Your task to perform on an android device: read, delete, or share a saved page in the chrome app Image 0: 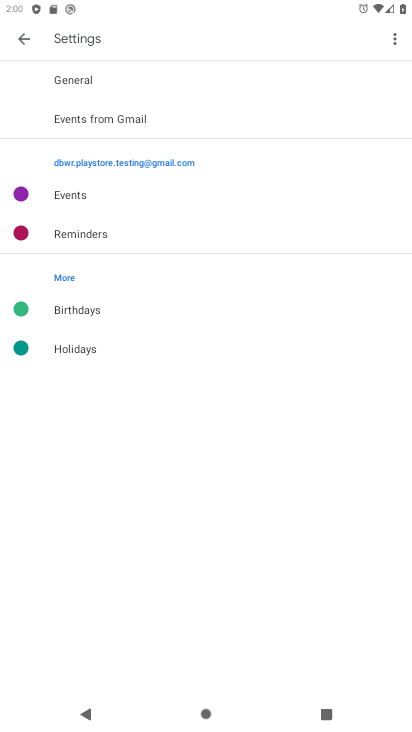
Step 0: press home button
Your task to perform on an android device: read, delete, or share a saved page in the chrome app Image 1: 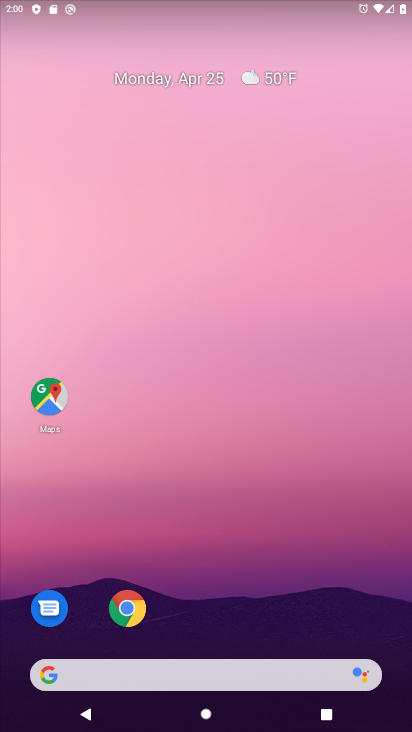
Step 1: click (143, 605)
Your task to perform on an android device: read, delete, or share a saved page in the chrome app Image 2: 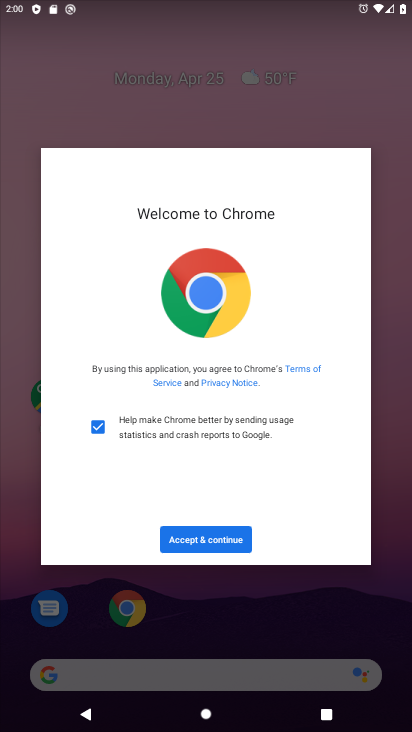
Step 2: click (228, 525)
Your task to perform on an android device: read, delete, or share a saved page in the chrome app Image 3: 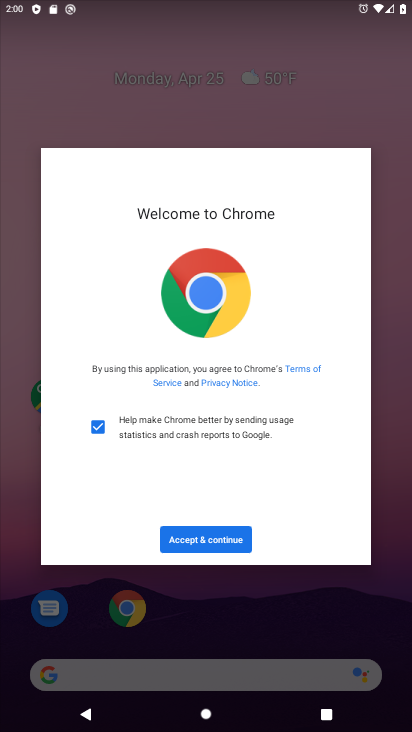
Step 3: click (226, 540)
Your task to perform on an android device: read, delete, or share a saved page in the chrome app Image 4: 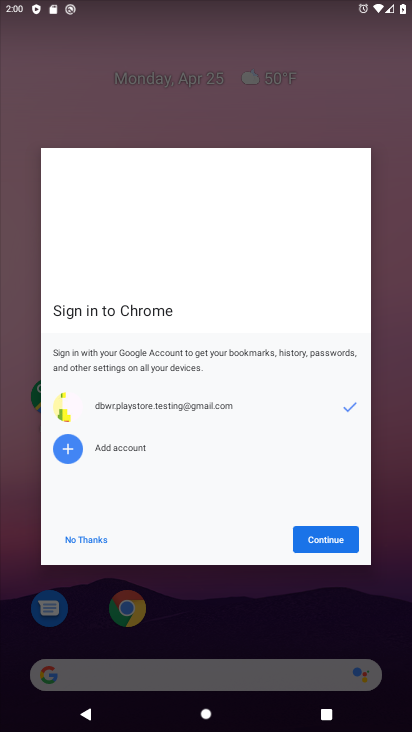
Step 4: click (318, 540)
Your task to perform on an android device: read, delete, or share a saved page in the chrome app Image 5: 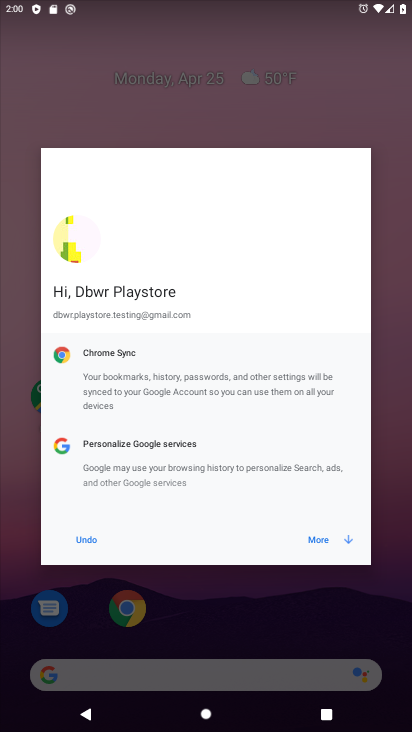
Step 5: click (318, 540)
Your task to perform on an android device: read, delete, or share a saved page in the chrome app Image 6: 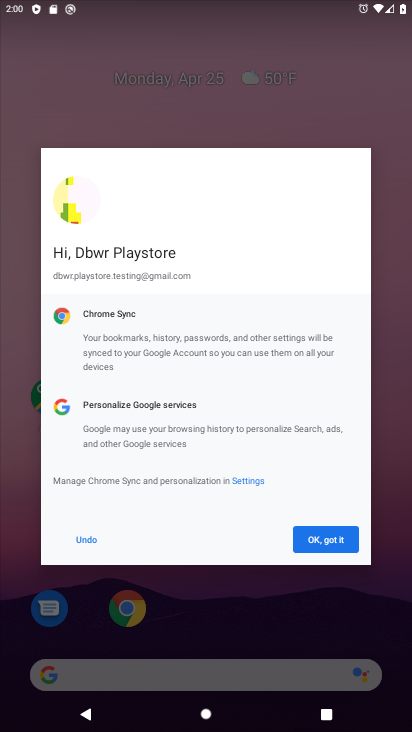
Step 6: click (318, 540)
Your task to perform on an android device: read, delete, or share a saved page in the chrome app Image 7: 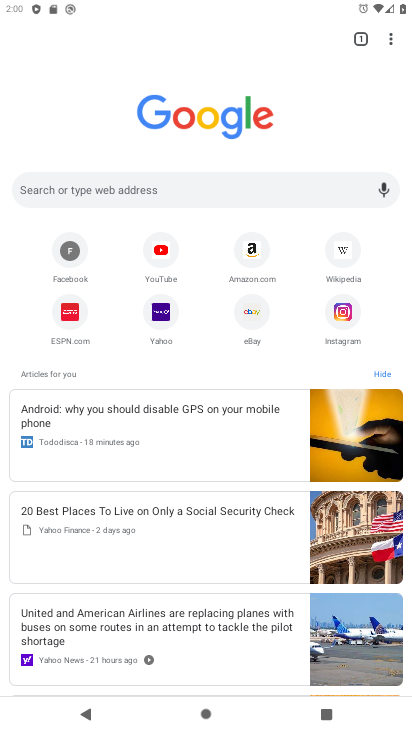
Step 7: drag from (389, 39) to (248, 253)
Your task to perform on an android device: read, delete, or share a saved page in the chrome app Image 8: 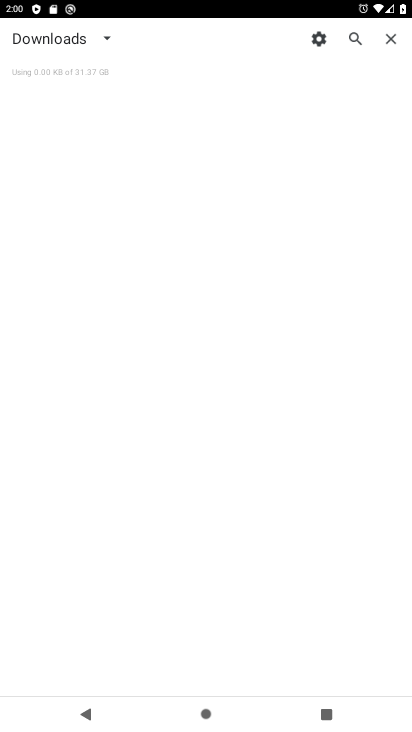
Step 8: click (95, 41)
Your task to perform on an android device: read, delete, or share a saved page in the chrome app Image 9: 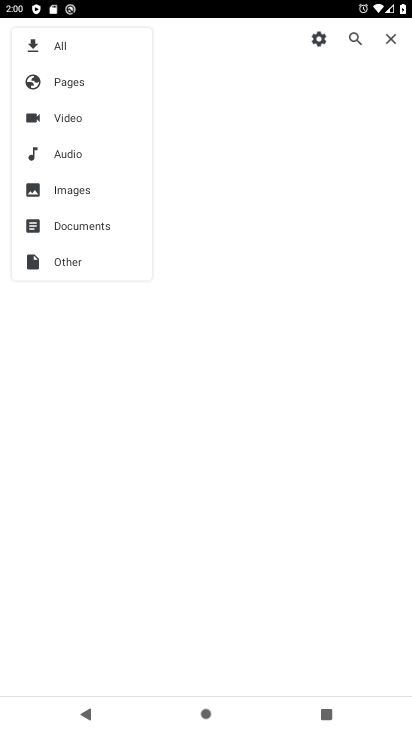
Step 9: click (87, 81)
Your task to perform on an android device: read, delete, or share a saved page in the chrome app Image 10: 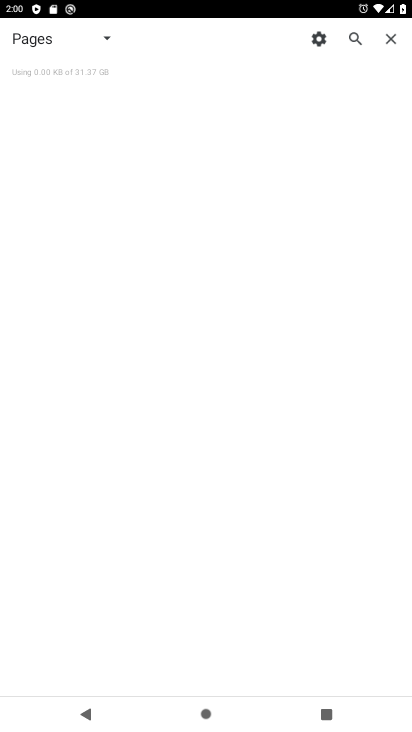
Step 10: task complete